Your task to perform on an android device: Open the stopwatch Image 0: 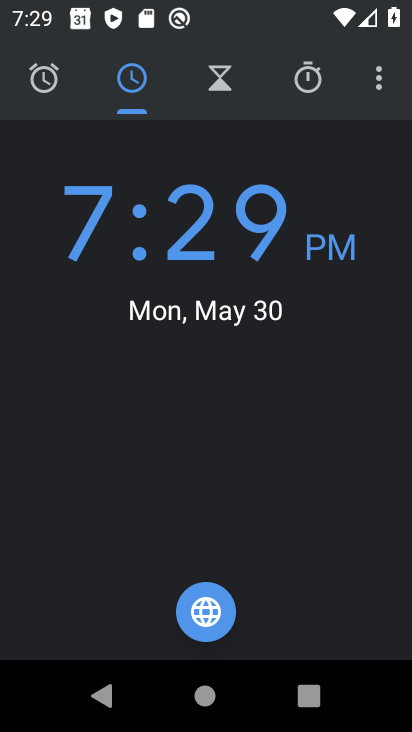
Step 0: press home button
Your task to perform on an android device: Open the stopwatch Image 1: 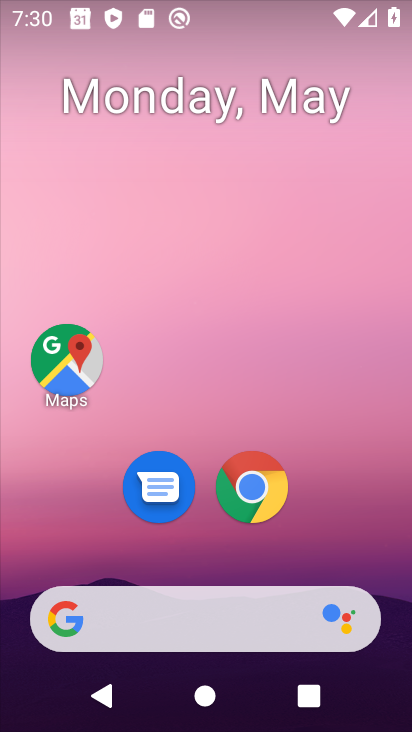
Step 1: drag from (226, 656) to (172, 306)
Your task to perform on an android device: Open the stopwatch Image 2: 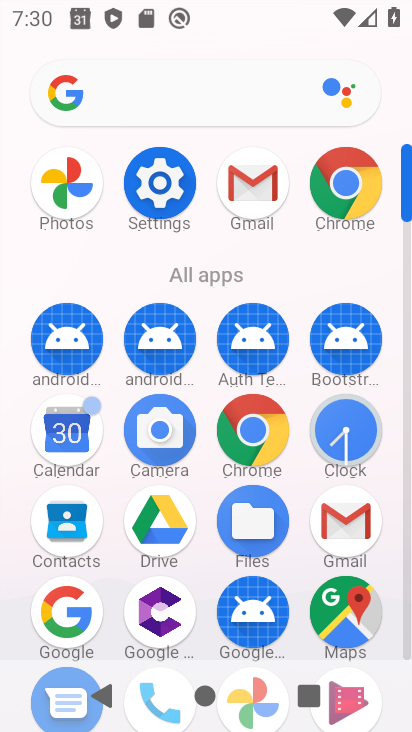
Step 2: click (345, 432)
Your task to perform on an android device: Open the stopwatch Image 3: 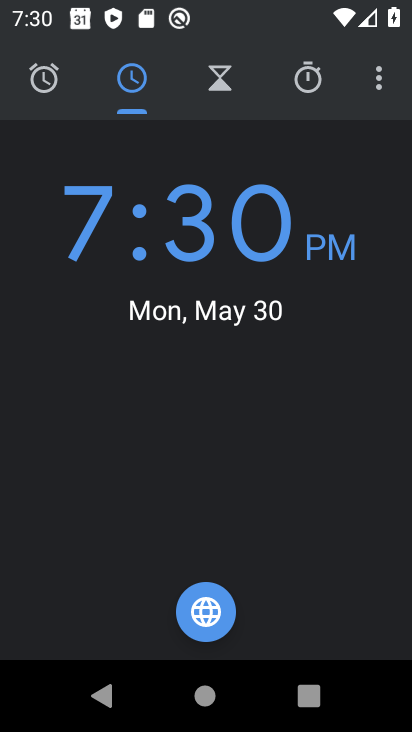
Step 3: click (312, 73)
Your task to perform on an android device: Open the stopwatch Image 4: 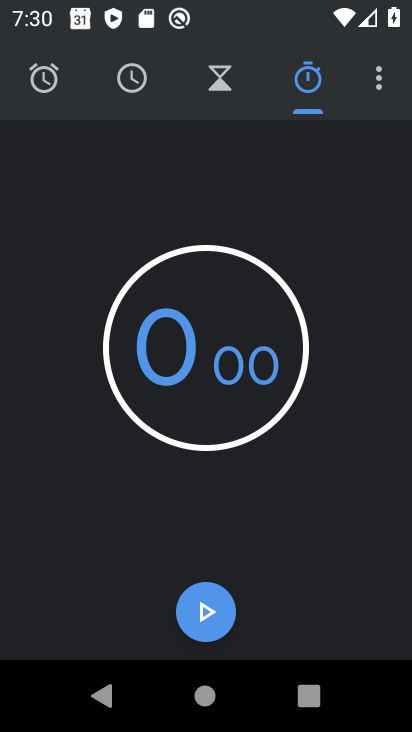
Step 4: task complete